Your task to perform on an android device: make emails show in primary in the gmail app Image 0: 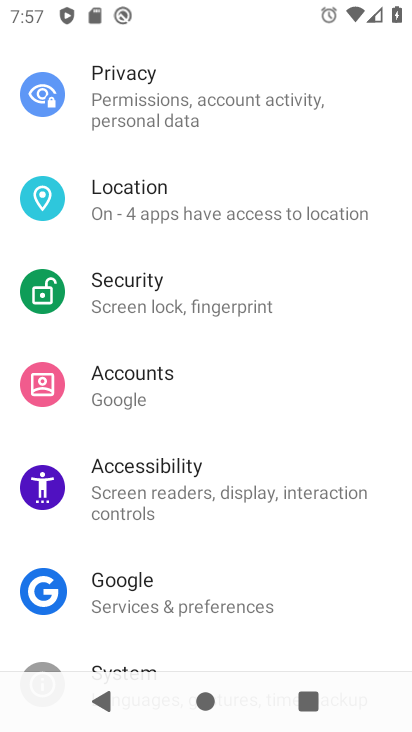
Step 0: press home button
Your task to perform on an android device: make emails show in primary in the gmail app Image 1: 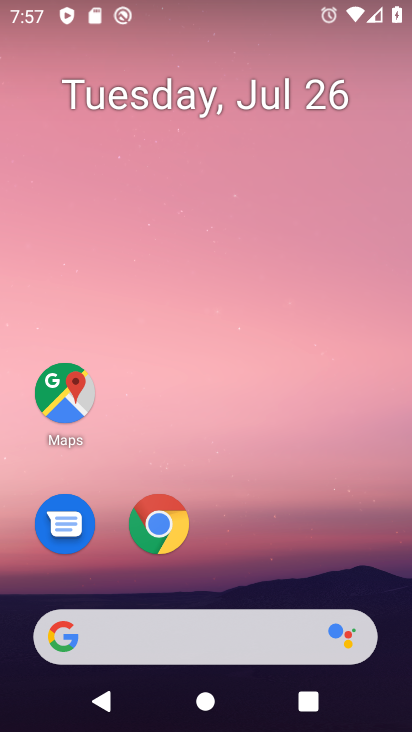
Step 1: drag from (247, 518) to (246, 29)
Your task to perform on an android device: make emails show in primary in the gmail app Image 2: 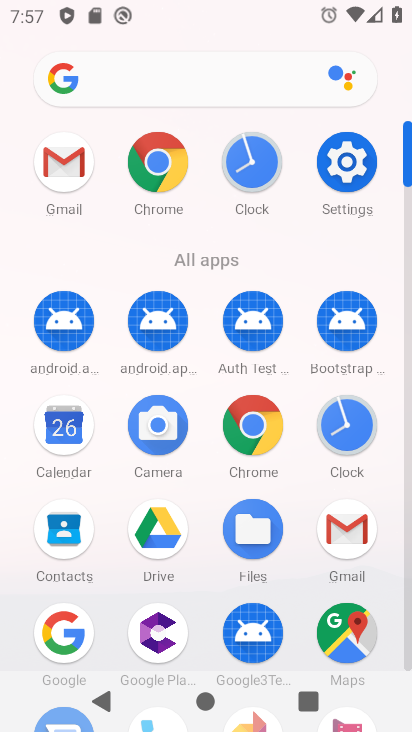
Step 2: click (75, 164)
Your task to perform on an android device: make emails show in primary in the gmail app Image 3: 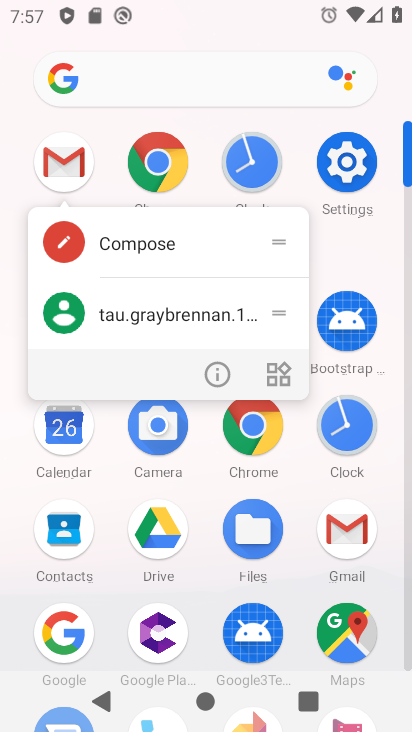
Step 3: click (75, 164)
Your task to perform on an android device: make emails show in primary in the gmail app Image 4: 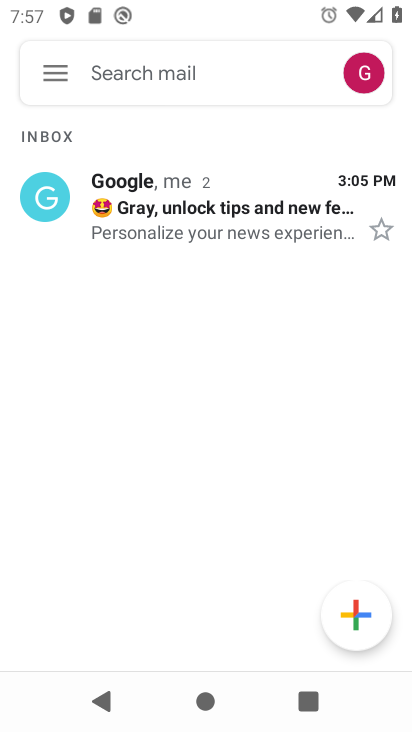
Step 4: click (57, 74)
Your task to perform on an android device: make emails show in primary in the gmail app Image 5: 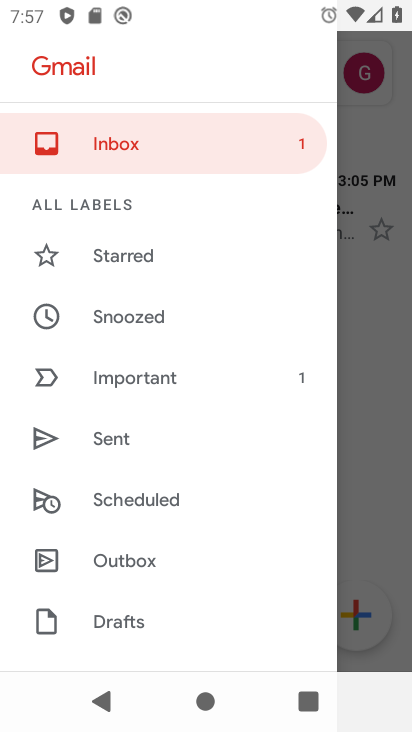
Step 5: drag from (182, 448) to (185, 21)
Your task to perform on an android device: make emails show in primary in the gmail app Image 6: 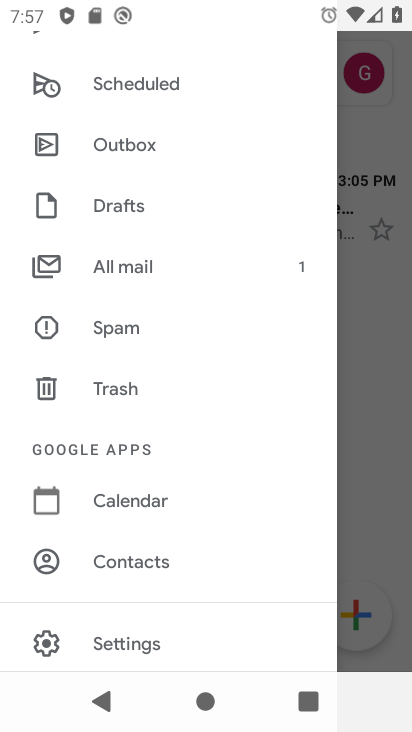
Step 6: click (124, 631)
Your task to perform on an android device: make emails show in primary in the gmail app Image 7: 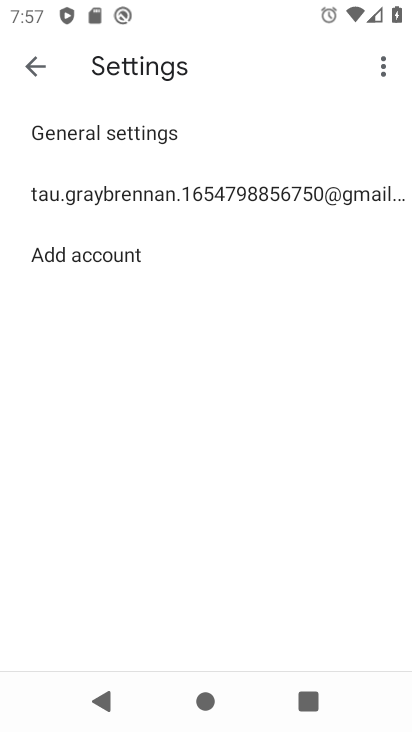
Step 7: click (172, 193)
Your task to perform on an android device: make emails show in primary in the gmail app Image 8: 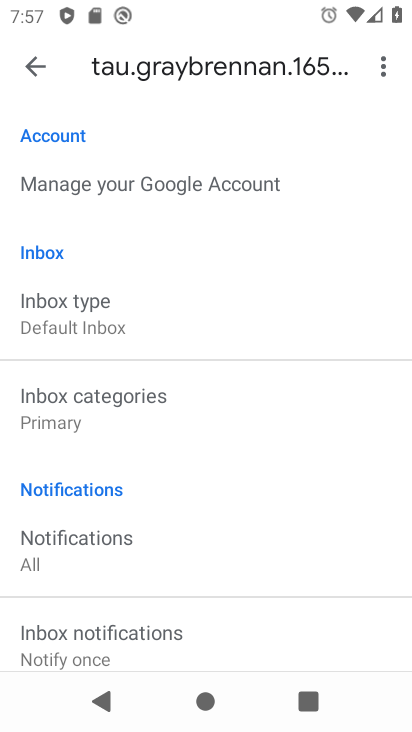
Step 8: click (82, 417)
Your task to perform on an android device: make emails show in primary in the gmail app Image 9: 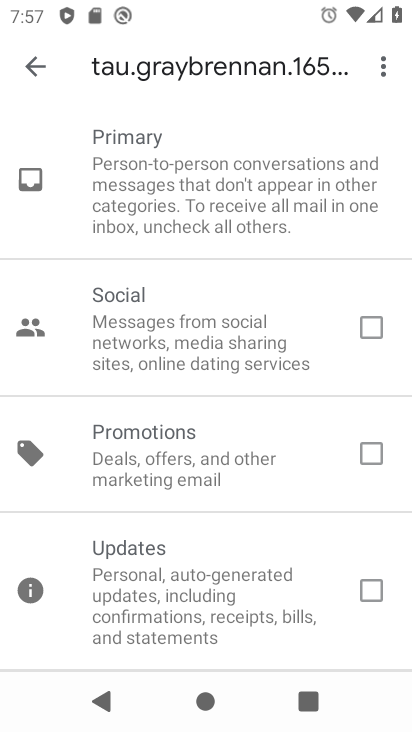
Step 9: click (38, 57)
Your task to perform on an android device: make emails show in primary in the gmail app Image 10: 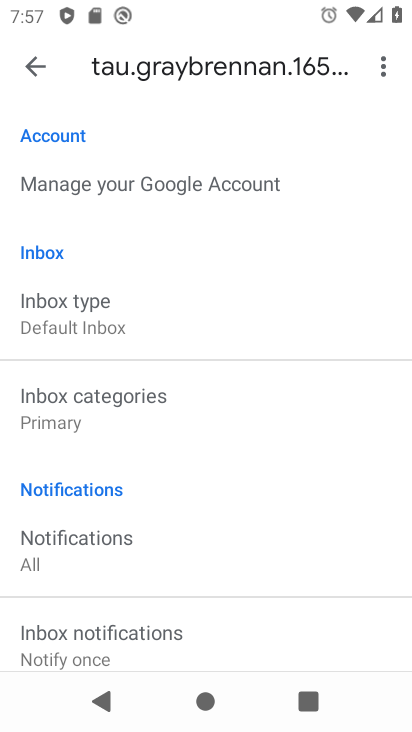
Step 10: task complete